Your task to perform on an android device: Show me productivity apps on the Play Store Image 0: 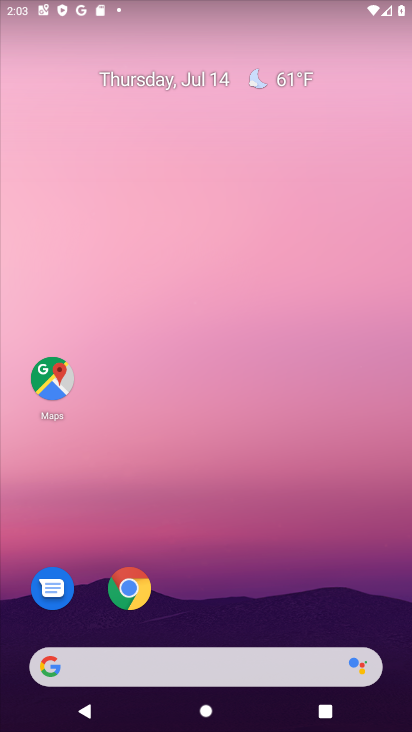
Step 0: drag from (229, 593) to (271, 125)
Your task to perform on an android device: Show me productivity apps on the Play Store Image 1: 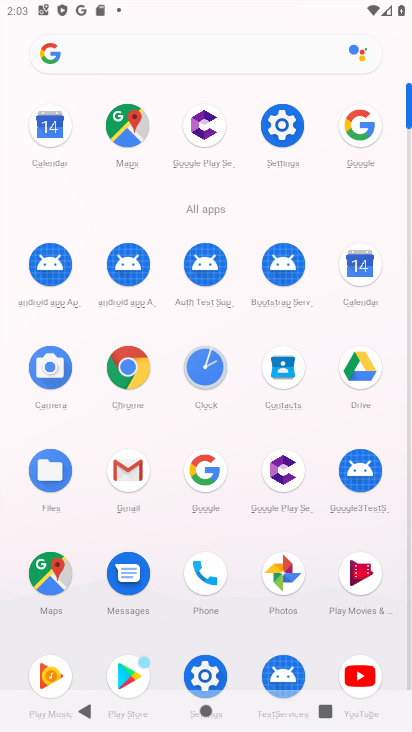
Step 1: click (124, 677)
Your task to perform on an android device: Show me productivity apps on the Play Store Image 2: 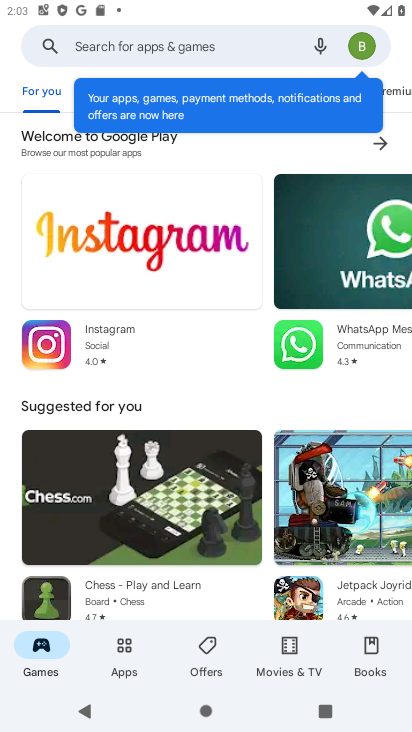
Step 2: click (130, 656)
Your task to perform on an android device: Show me productivity apps on the Play Store Image 3: 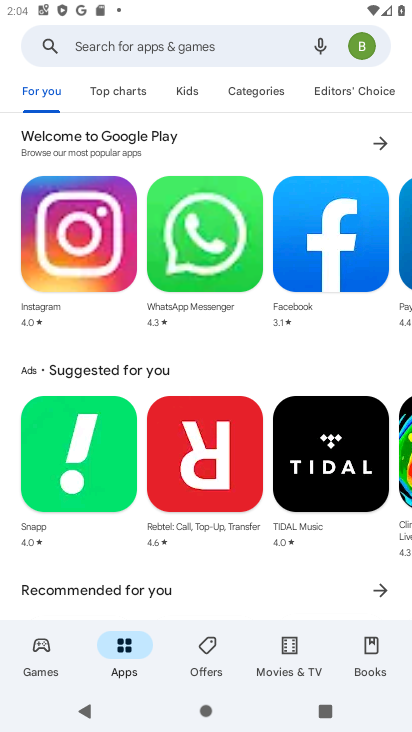
Step 3: click (248, 81)
Your task to perform on an android device: Show me productivity apps on the Play Store Image 4: 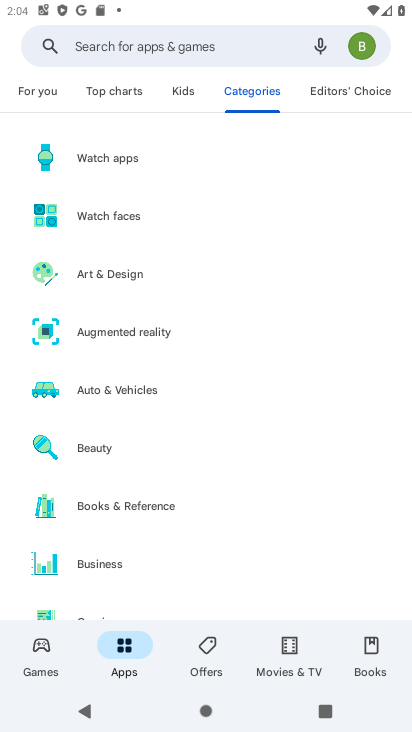
Step 4: drag from (263, 566) to (258, 66)
Your task to perform on an android device: Show me productivity apps on the Play Store Image 5: 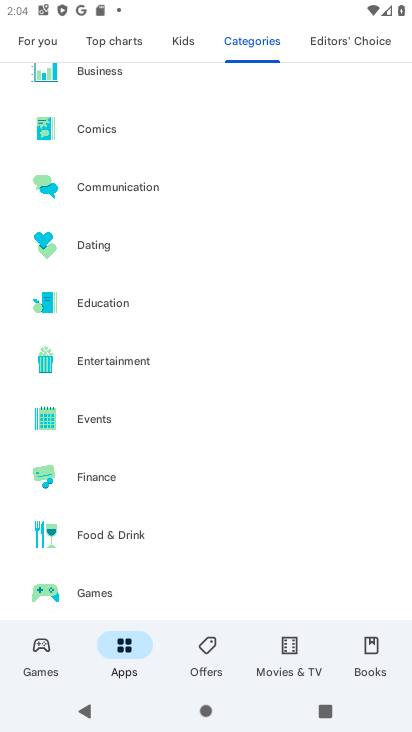
Step 5: drag from (221, 544) to (234, 163)
Your task to perform on an android device: Show me productivity apps on the Play Store Image 6: 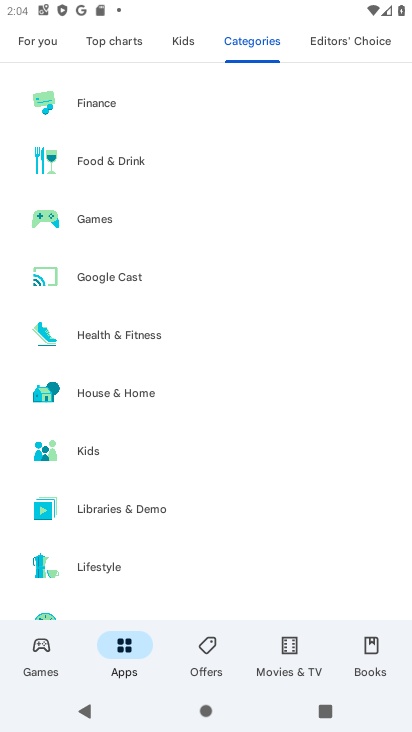
Step 6: drag from (211, 539) to (231, 91)
Your task to perform on an android device: Show me productivity apps on the Play Store Image 7: 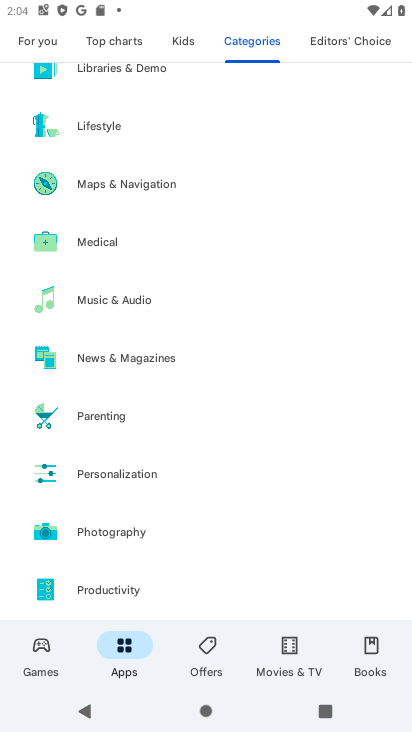
Step 7: click (101, 593)
Your task to perform on an android device: Show me productivity apps on the Play Store Image 8: 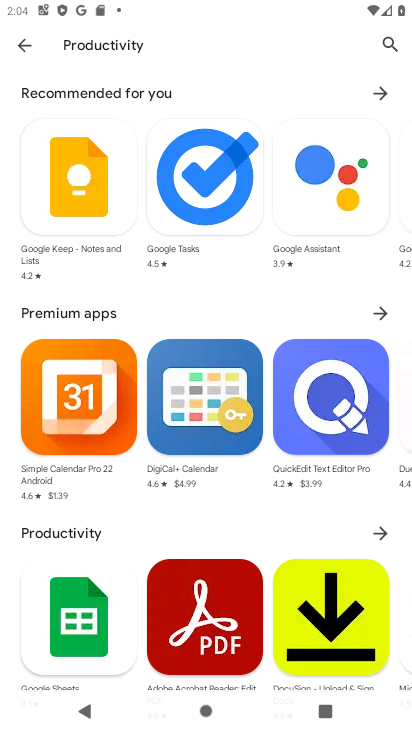
Step 8: task complete